Your task to perform on an android device: turn off picture-in-picture Image 0: 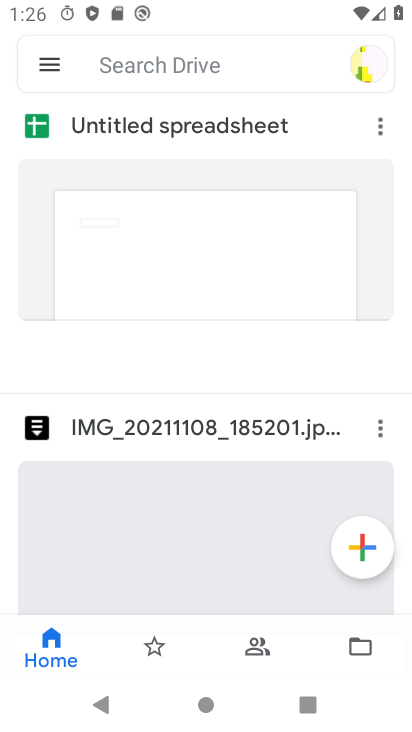
Step 0: drag from (211, 604) to (196, 372)
Your task to perform on an android device: turn off picture-in-picture Image 1: 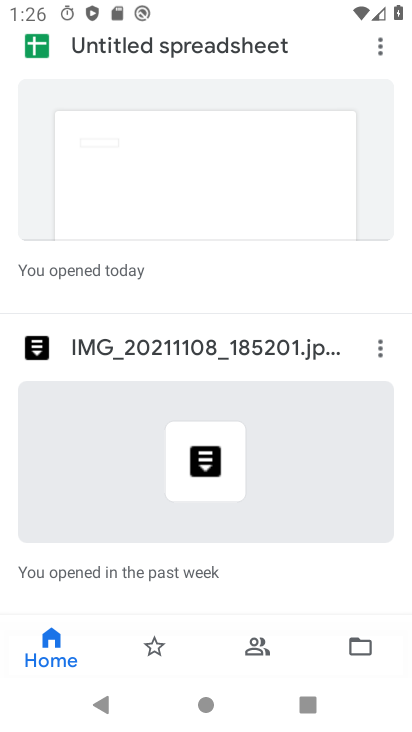
Step 1: press home button
Your task to perform on an android device: turn off picture-in-picture Image 2: 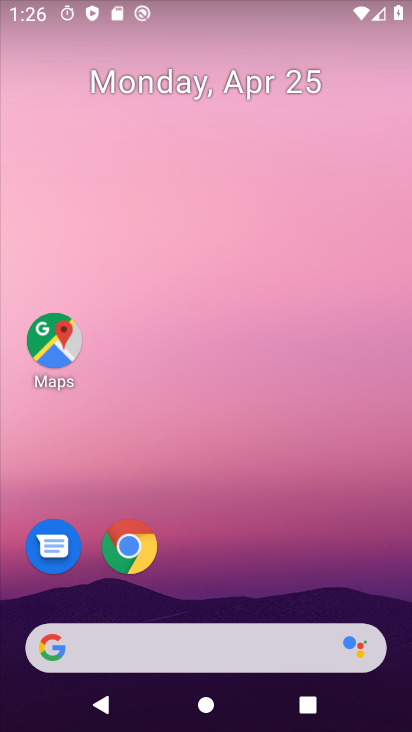
Step 2: drag from (198, 594) to (131, 4)
Your task to perform on an android device: turn off picture-in-picture Image 3: 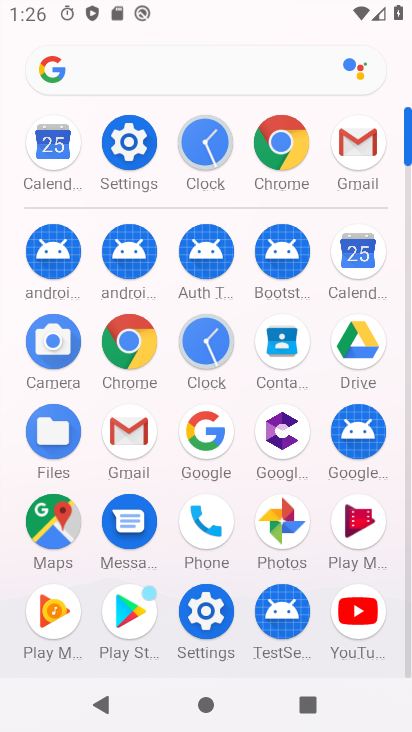
Step 3: click (124, 170)
Your task to perform on an android device: turn off picture-in-picture Image 4: 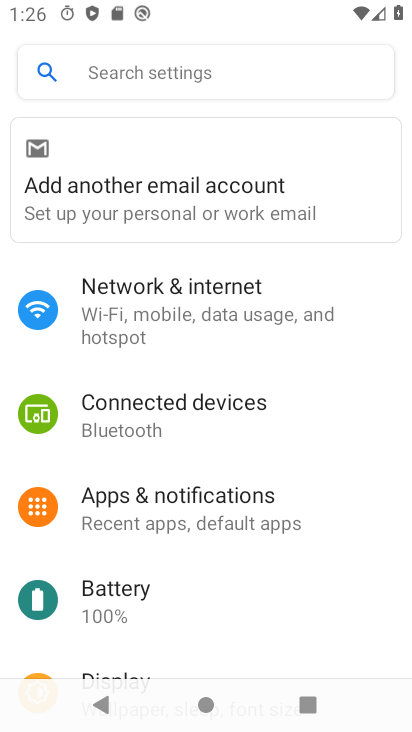
Step 4: drag from (204, 565) to (149, 56)
Your task to perform on an android device: turn off picture-in-picture Image 5: 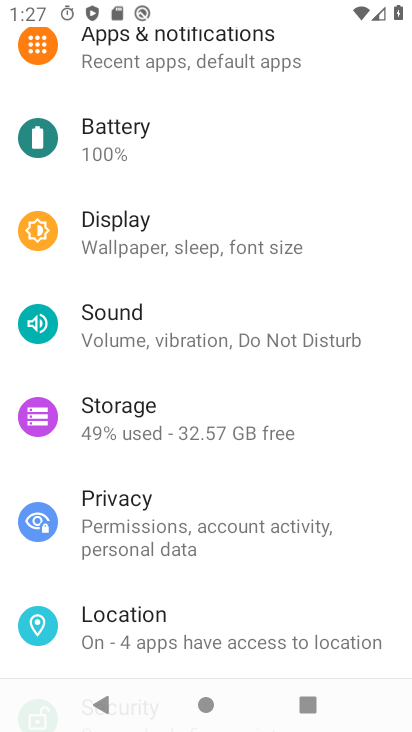
Step 5: click (160, 73)
Your task to perform on an android device: turn off picture-in-picture Image 6: 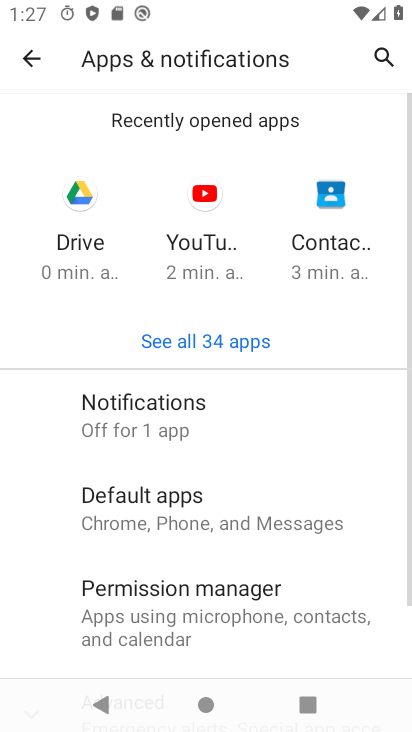
Step 6: drag from (194, 594) to (183, 125)
Your task to perform on an android device: turn off picture-in-picture Image 7: 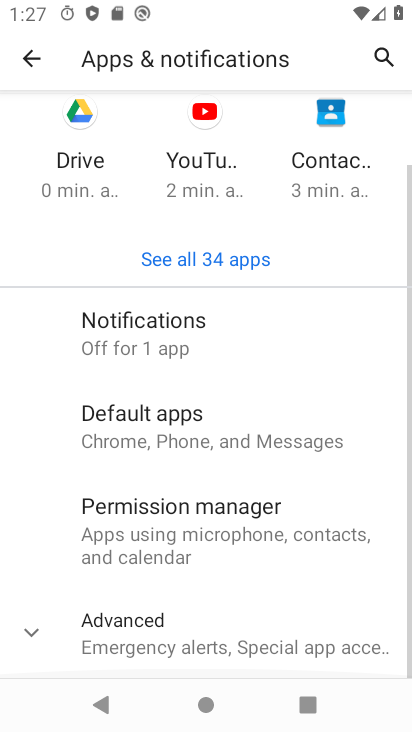
Step 7: click (168, 663)
Your task to perform on an android device: turn off picture-in-picture Image 8: 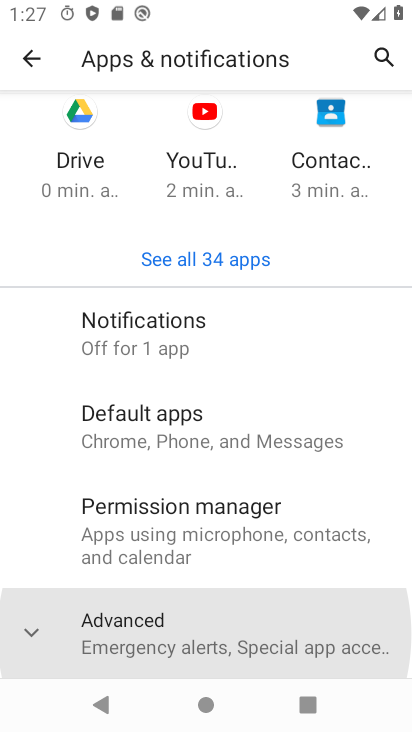
Step 8: drag from (168, 661) to (116, 102)
Your task to perform on an android device: turn off picture-in-picture Image 9: 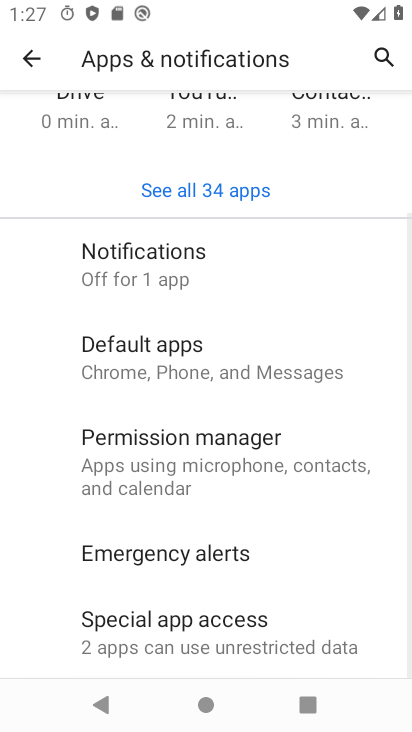
Step 9: click (142, 608)
Your task to perform on an android device: turn off picture-in-picture Image 10: 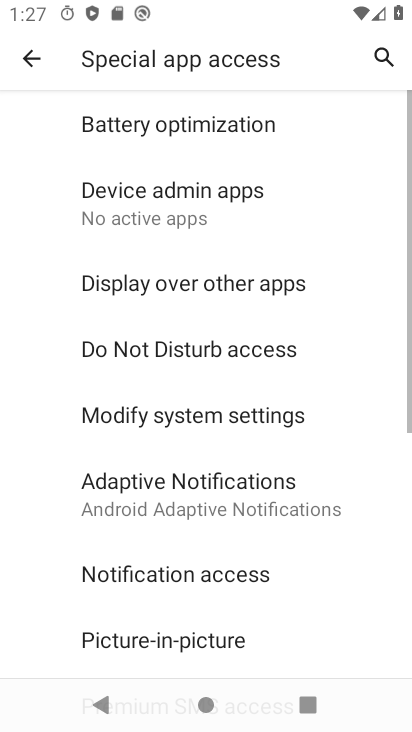
Step 10: drag from (137, 605) to (106, 167)
Your task to perform on an android device: turn off picture-in-picture Image 11: 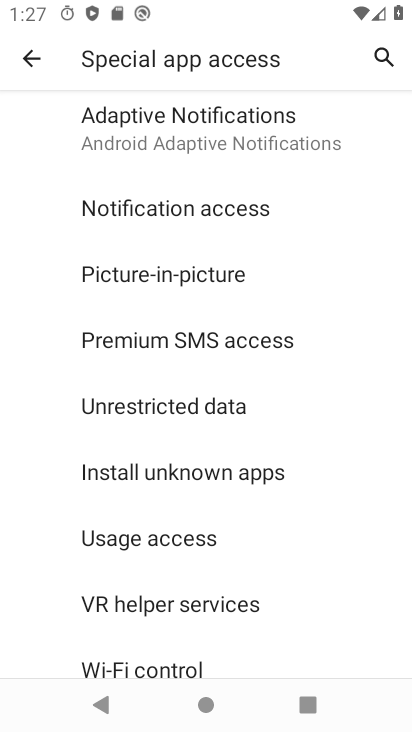
Step 11: click (141, 271)
Your task to perform on an android device: turn off picture-in-picture Image 12: 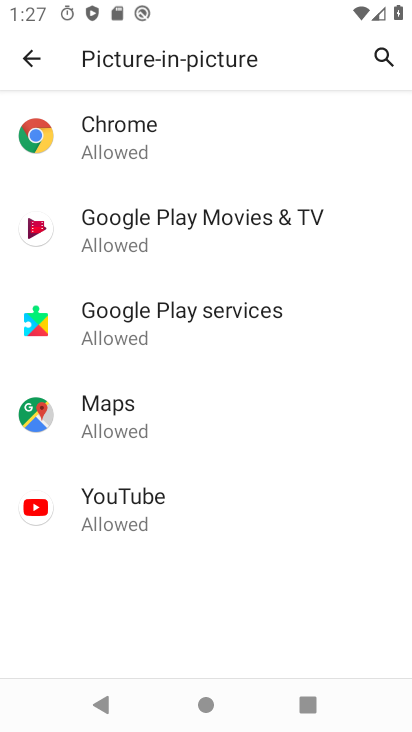
Step 12: task complete